Your task to perform on an android device: toggle wifi Image 0: 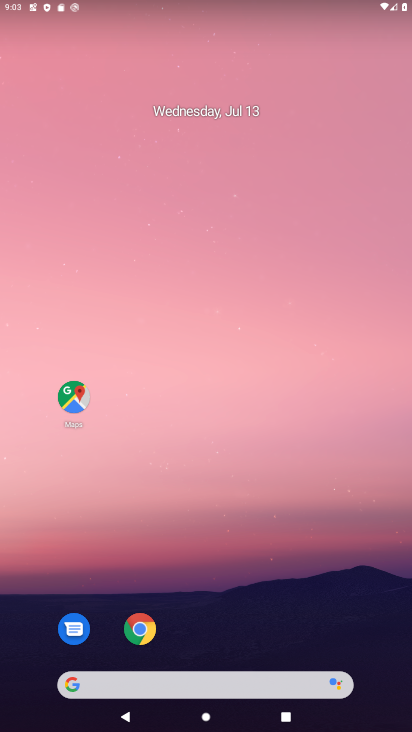
Step 0: drag from (219, 0) to (231, 356)
Your task to perform on an android device: toggle wifi Image 1: 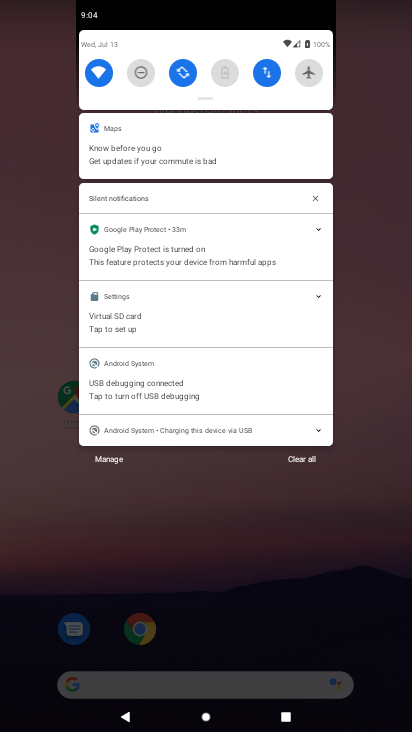
Step 1: click (98, 74)
Your task to perform on an android device: toggle wifi Image 2: 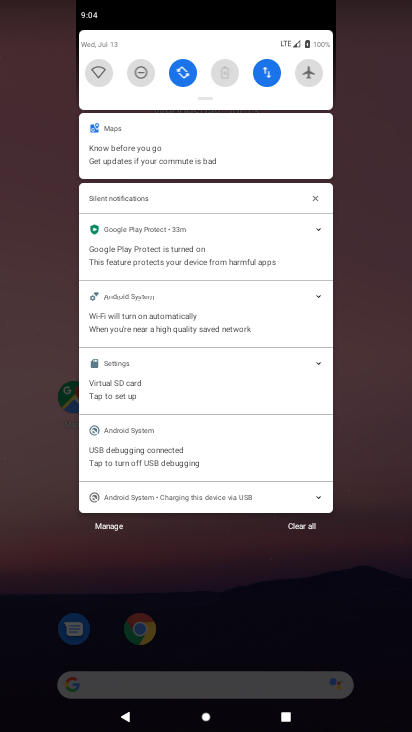
Step 2: task complete